Your task to perform on an android device: What is the recent news? Image 0: 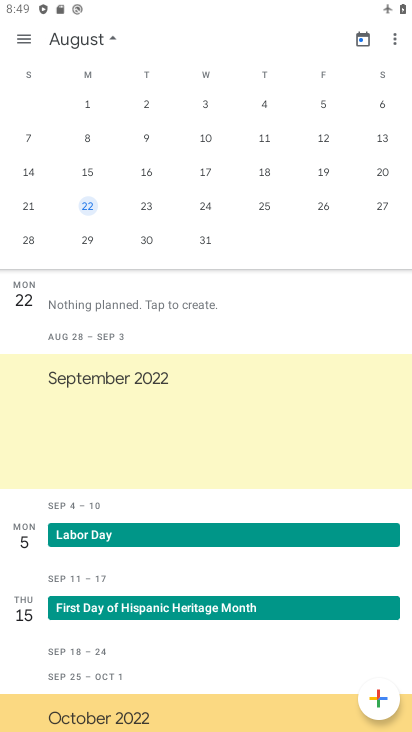
Step 0: press home button
Your task to perform on an android device: What is the recent news? Image 1: 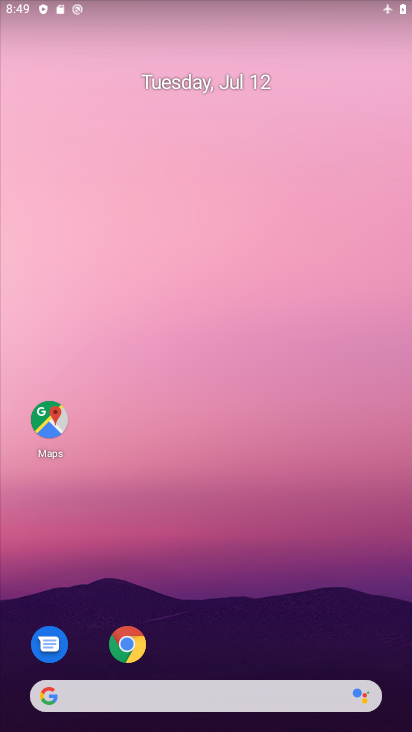
Step 1: drag from (196, 647) to (205, 212)
Your task to perform on an android device: What is the recent news? Image 2: 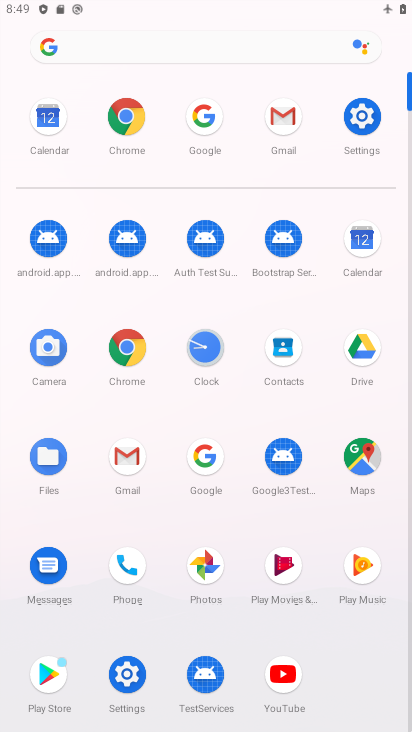
Step 2: click (208, 132)
Your task to perform on an android device: What is the recent news? Image 3: 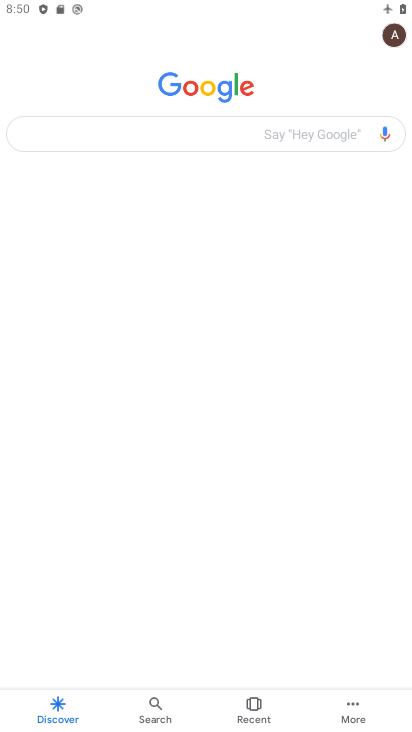
Step 3: click (190, 137)
Your task to perform on an android device: What is the recent news? Image 4: 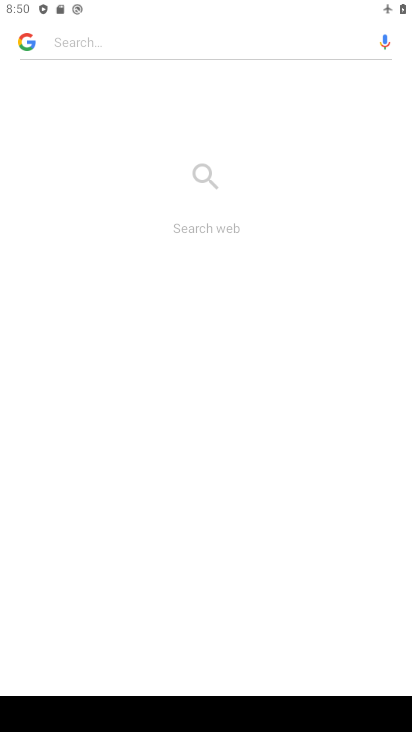
Step 4: type "recent news"
Your task to perform on an android device: What is the recent news? Image 5: 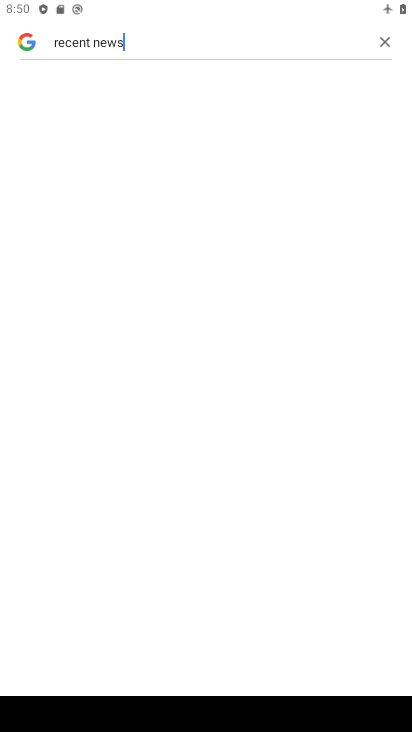
Step 5: task complete